Your task to perform on an android device: Open calendar and show me the second week of next month Image 0: 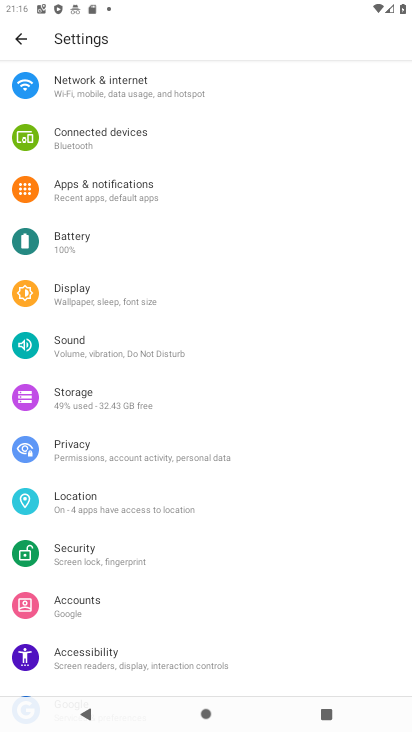
Step 0: press home button
Your task to perform on an android device: Open calendar and show me the second week of next month Image 1: 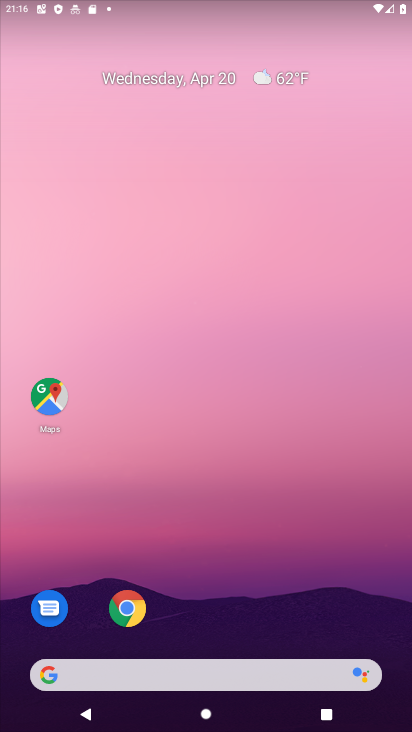
Step 1: drag from (299, 617) to (279, 40)
Your task to perform on an android device: Open calendar and show me the second week of next month Image 2: 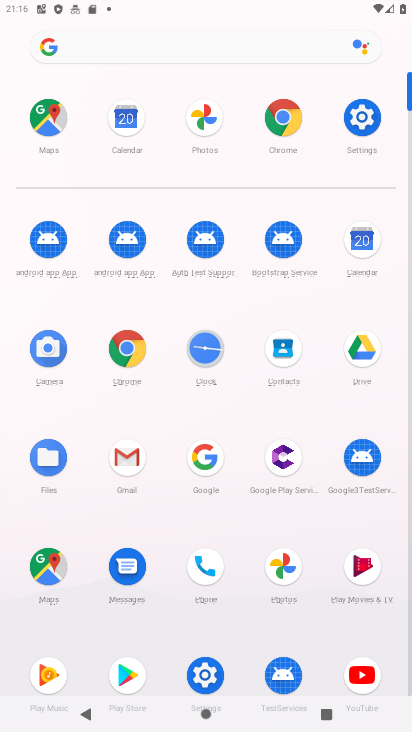
Step 2: click (130, 106)
Your task to perform on an android device: Open calendar and show me the second week of next month Image 3: 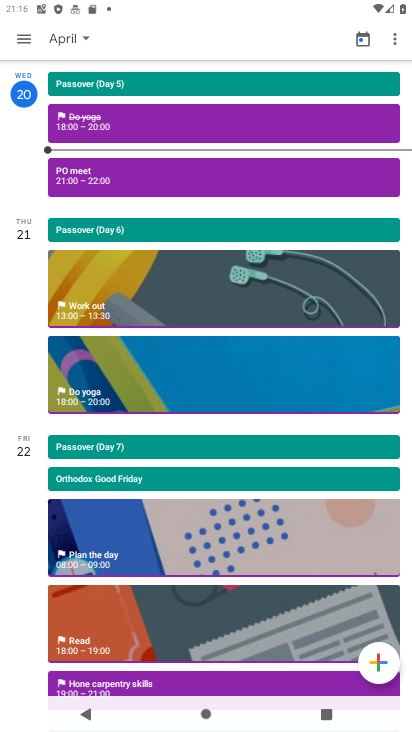
Step 3: click (81, 40)
Your task to perform on an android device: Open calendar and show me the second week of next month Image 4: 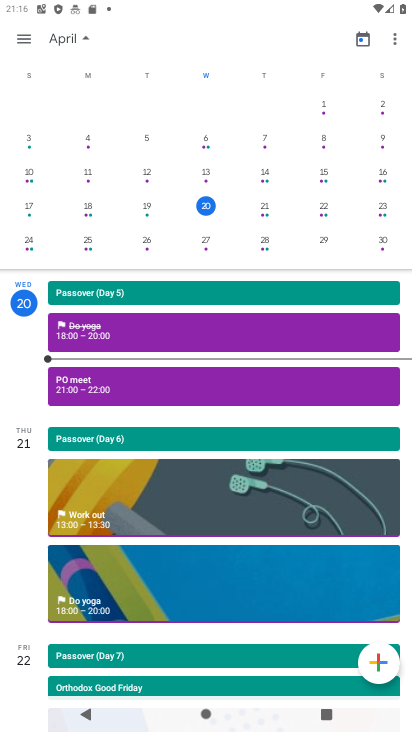
Step 4: drag from (366, 187) to (8, 176)
Your task to perform on an android device: Open calendar and show me the second week of next month Image 5: 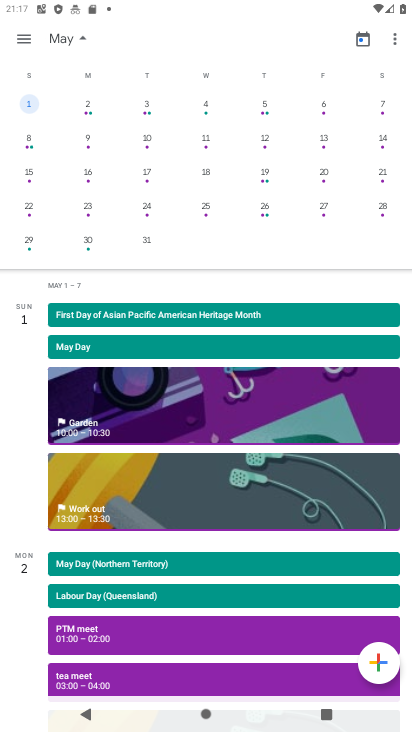
Step 5: click (28, 133)
Your task to perform on an android device: Open calendar and show me the second week of next month Image 6: 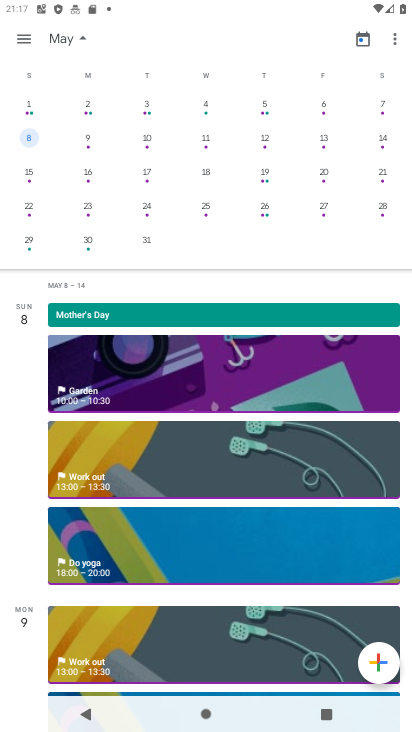
Step 6: task complete